Your task to perform on an android device: What's on the menu at Red Lobster? Image 0: 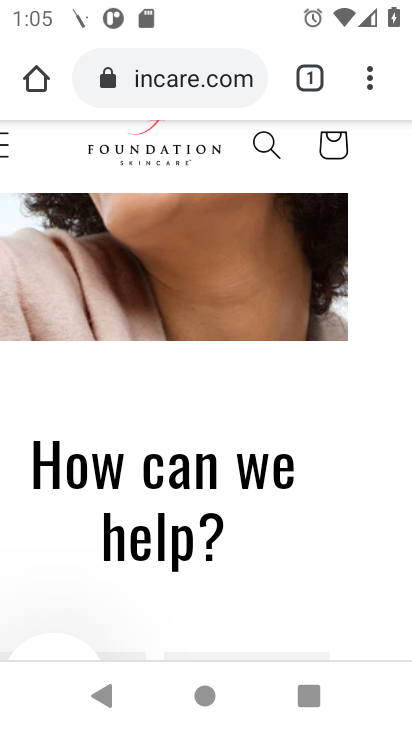
Step 0: click (166, 80)
Your task to perform on an android device: What's on the menu at Red Lobster? Image 1: 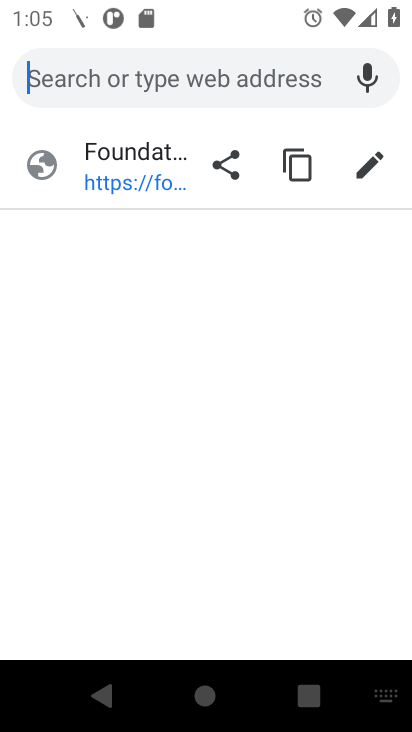
Step 1: type "red lobster"
Your task to perform on an android device: What's on the menu at Red Lobster? Image 2: 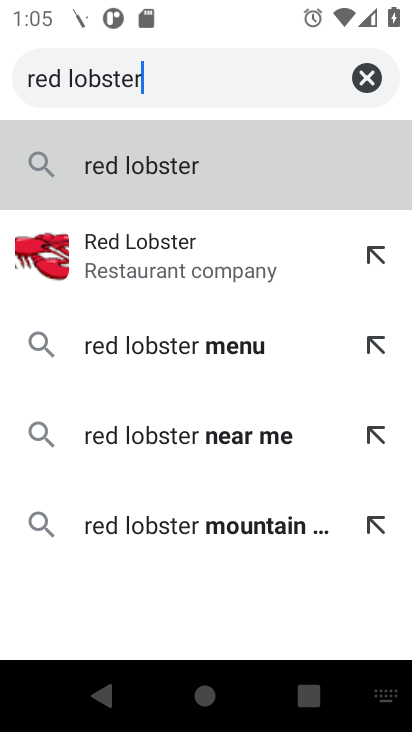
Step 2: type ""
Your task to perform on an android device: What's on the menu at Red Lobster? Image 3: 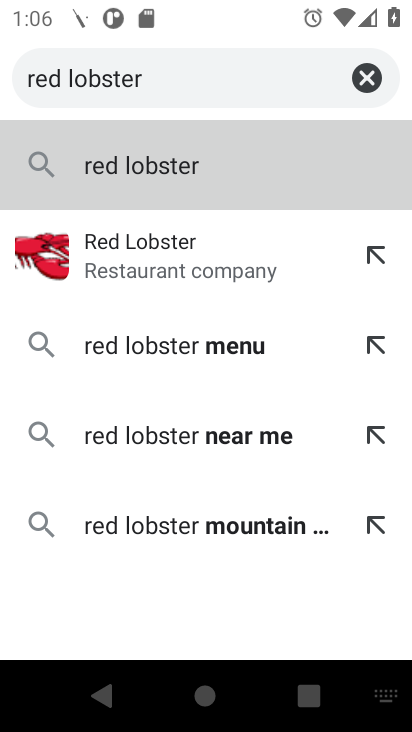
Step 3: press enter
Your task to perform on an android device: What's on the menu at Red Lobster? Image 4: 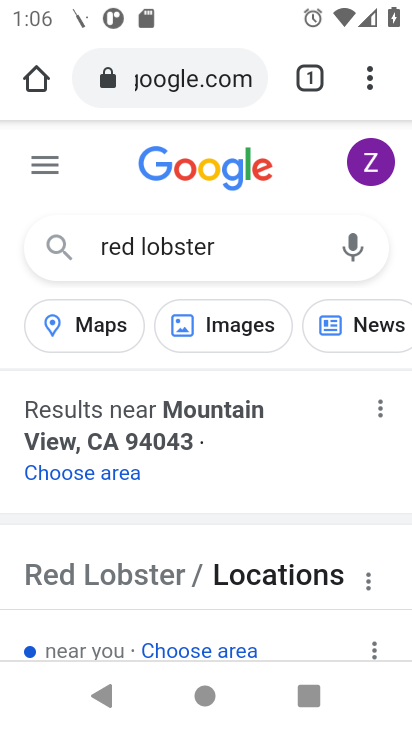
Step 4: drag from (209, 507) to (198, 270)
Your task to perform on an android device: What's on the menu at Red Lobster? Image 5: 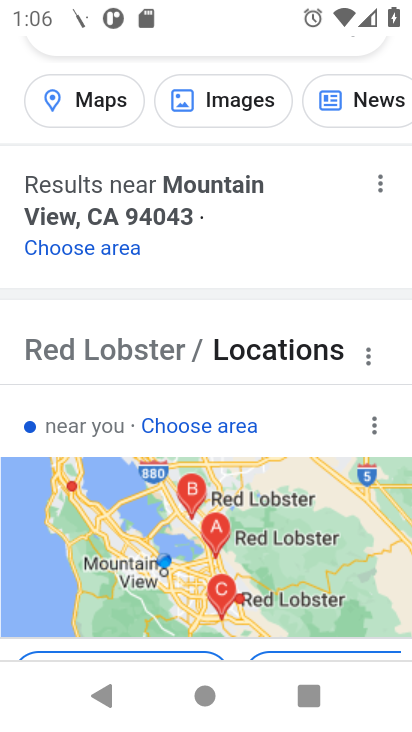
Step 5: drag from (205, 462) to (223, 243)
Your task to perform on an android device: What's on the menu at Red Lobster? Image 6: 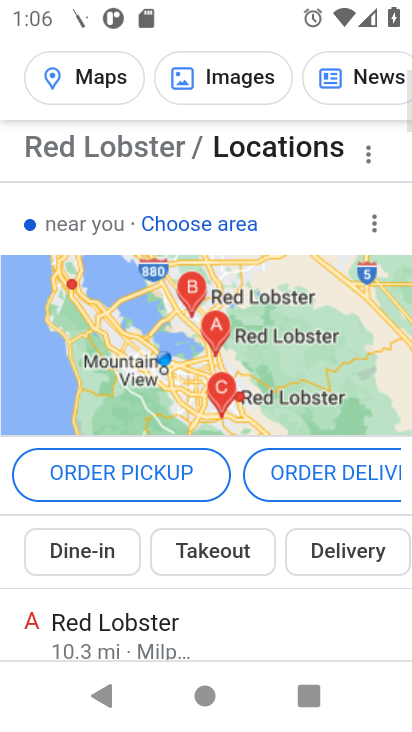
Step 6: drag from (261, 596) to (251, 198)
Your task to perform on an android device: What's on the menu at Red Lobster? Image 7: 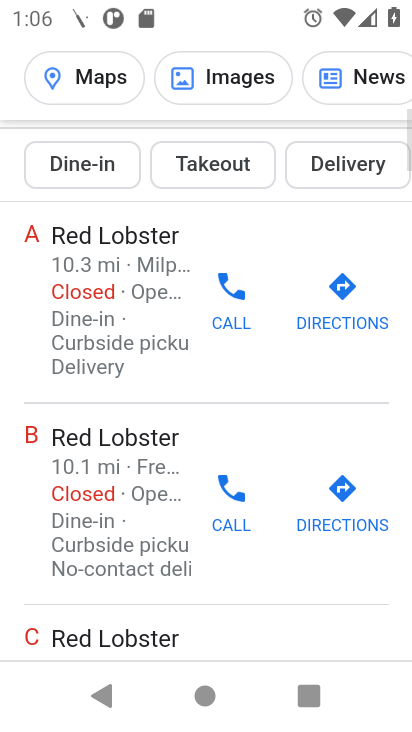
Step 7: drag from (168, 570) to (172, 222)
Your task to perform on an android device: What's on the menu at Red Lobster? Image 8: 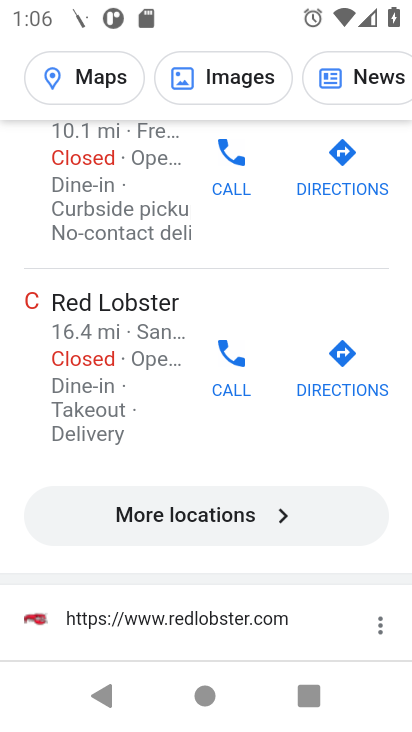
Step 8: drag from (149, 569) to (156, 301)
Your task to perform on an android device: What's on the menu at Red Lobster? Image 9: 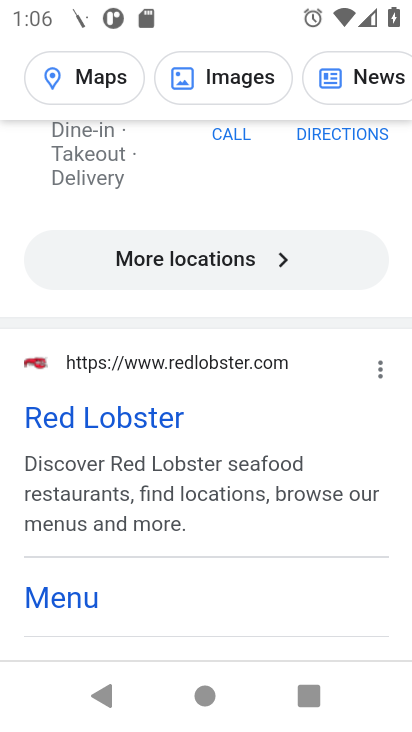
Step 9: click (55, 592)
Your task to perform on an android device: What's on the menu at Red Lobster? Image 10: 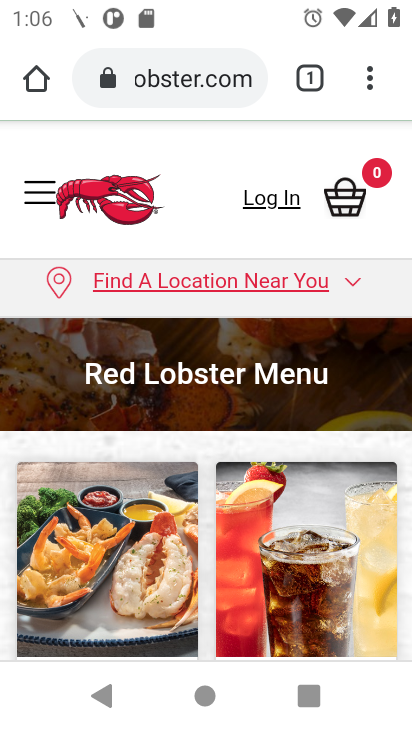
Step 10: task complete